Your task to perform on an android device: Open Maps and search for coffee Image 0: 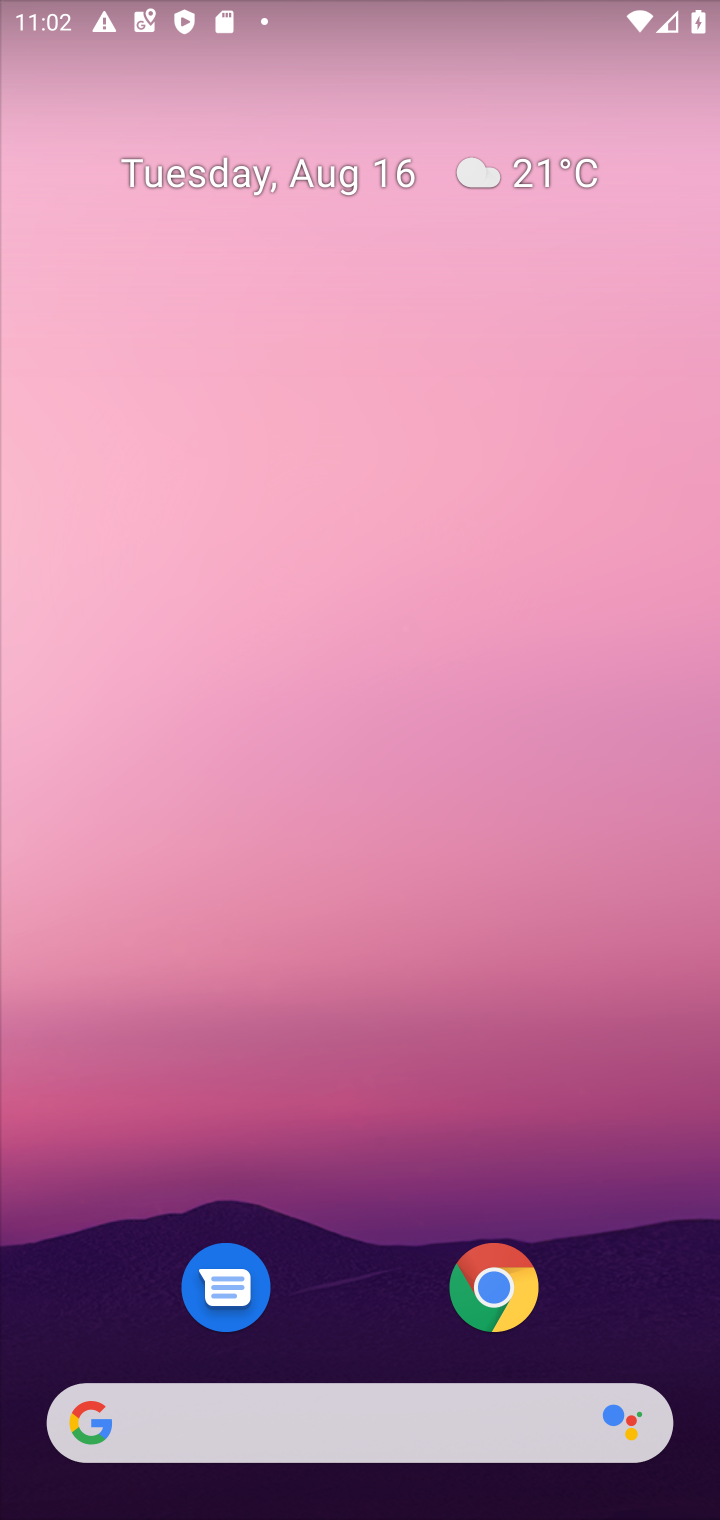
Step 0: drag from (676, 1333) to (629, 182)
Your task to perform on an android device: Open Maps and search for coffee Image 1: 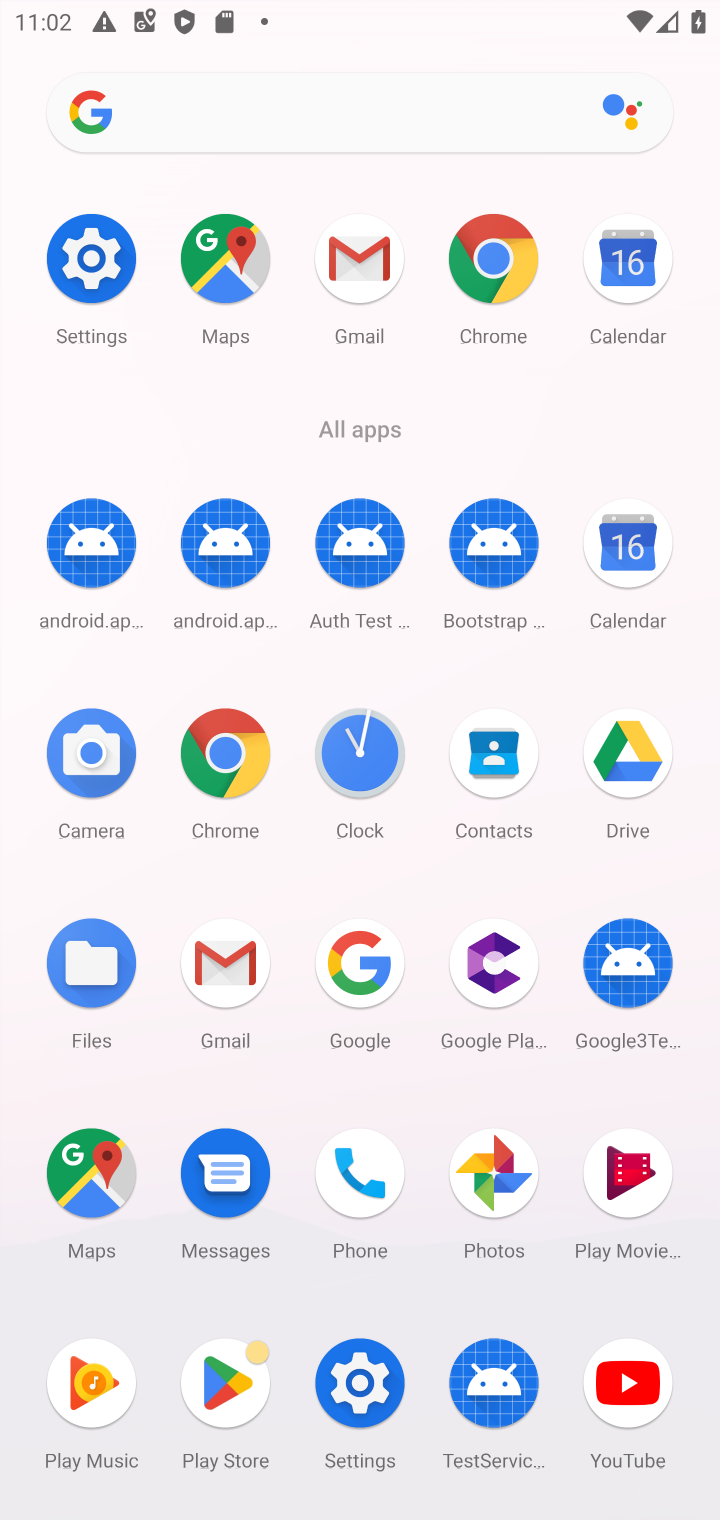
Step 1: click (91, 1176)
Your task to perform on an android device: Open Maps and search for coffee Image 2: 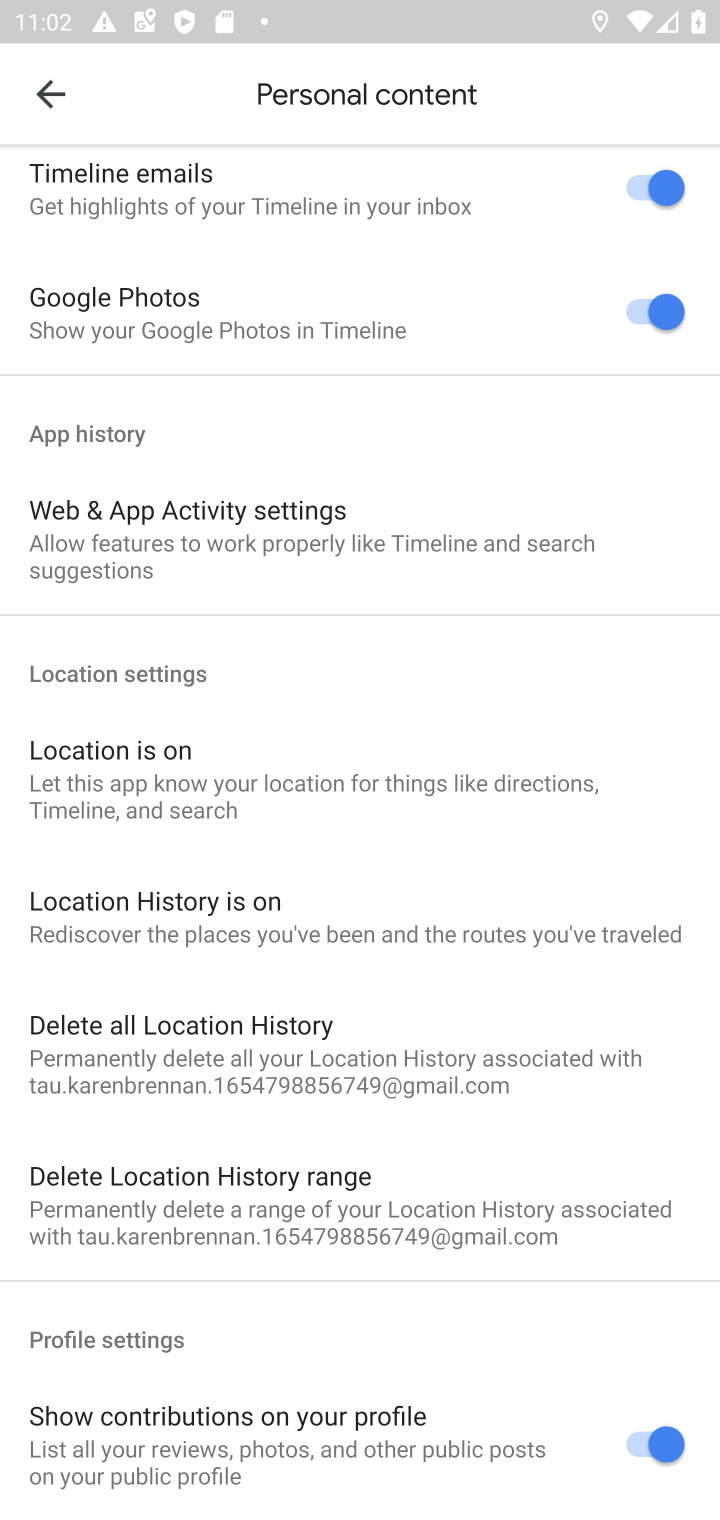
Step 2: press back button
Your task to perform on an android device: Open Maps and search for coffee Image 3: 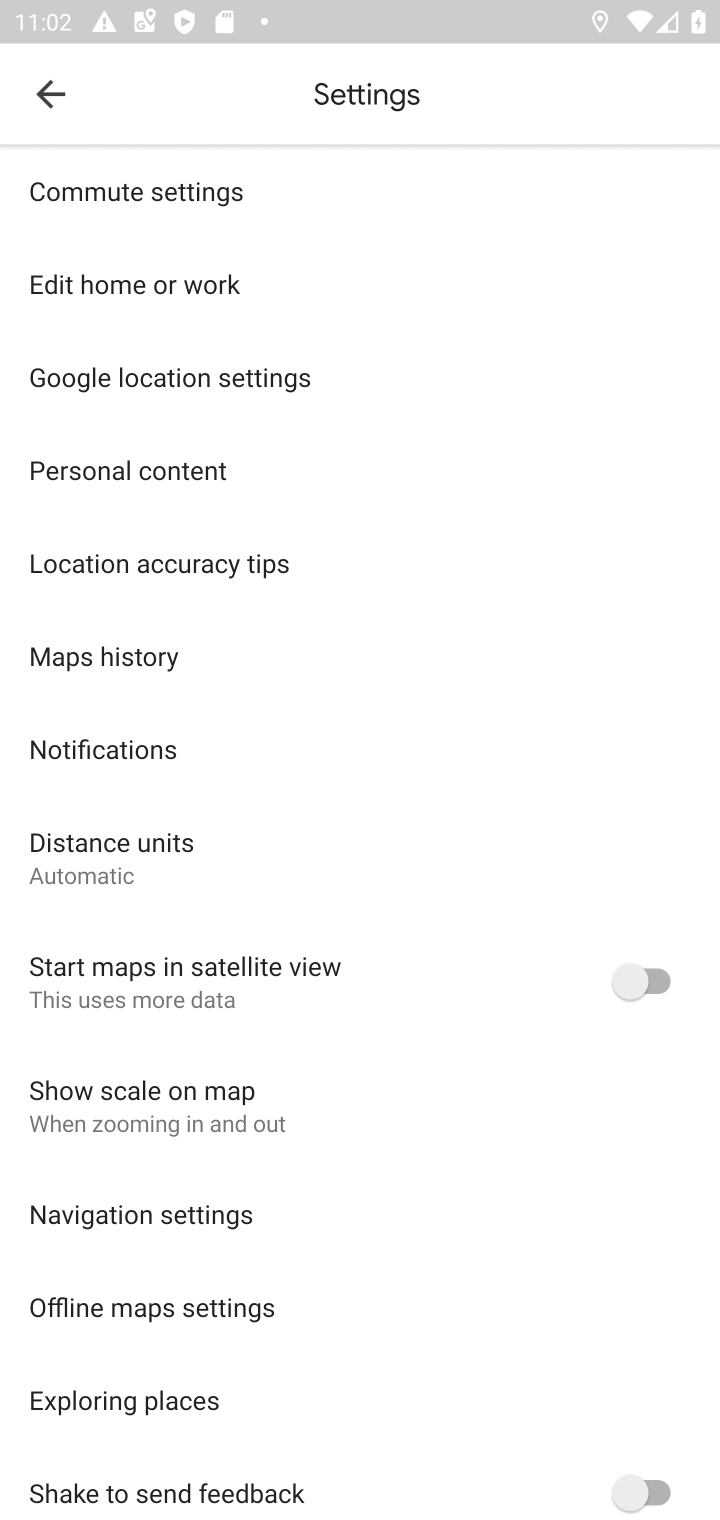
Step 3: press back button
Your task to perform on an android device: Open Maps and search for coffee Image 4: 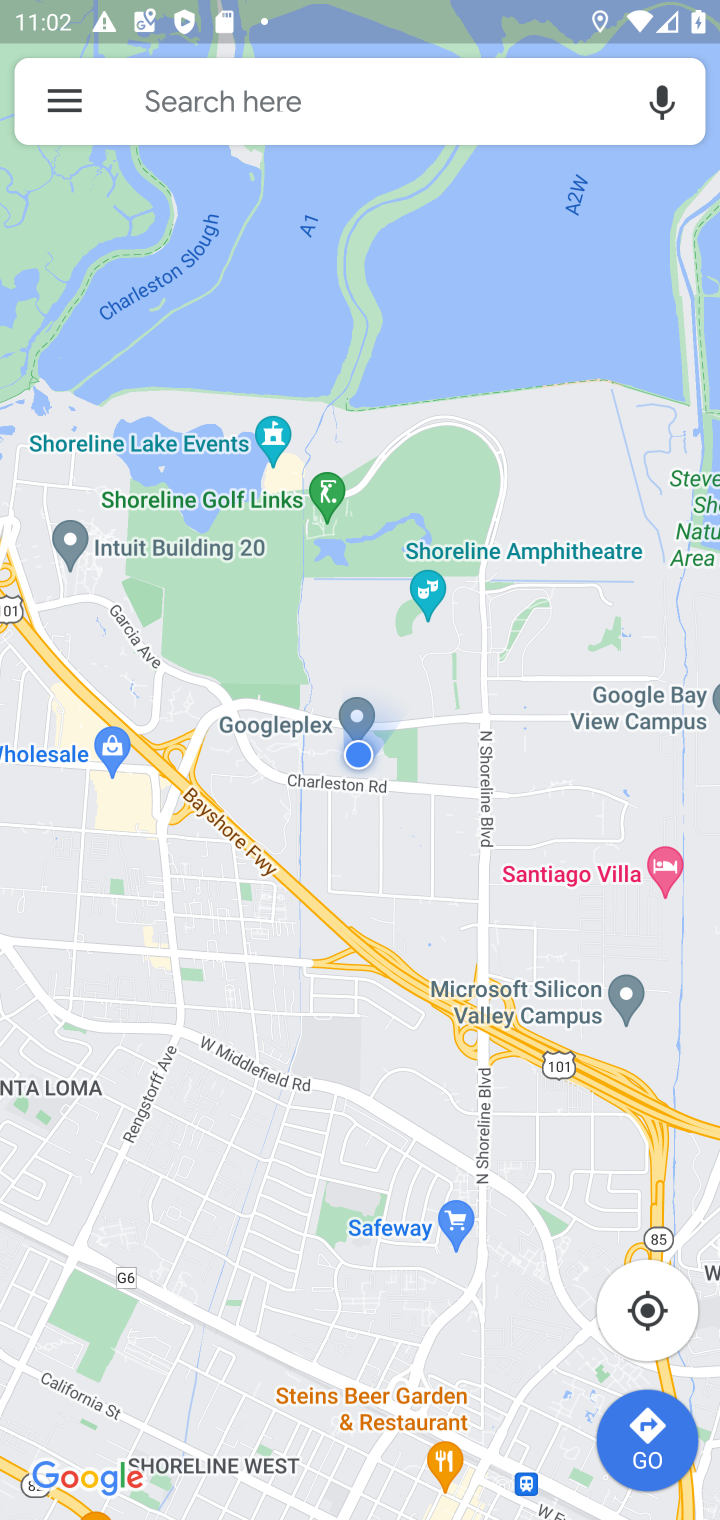
Step 4: click (258, 98)
Your task to perform on an android device: Open Maps and search for coffee Image 5: 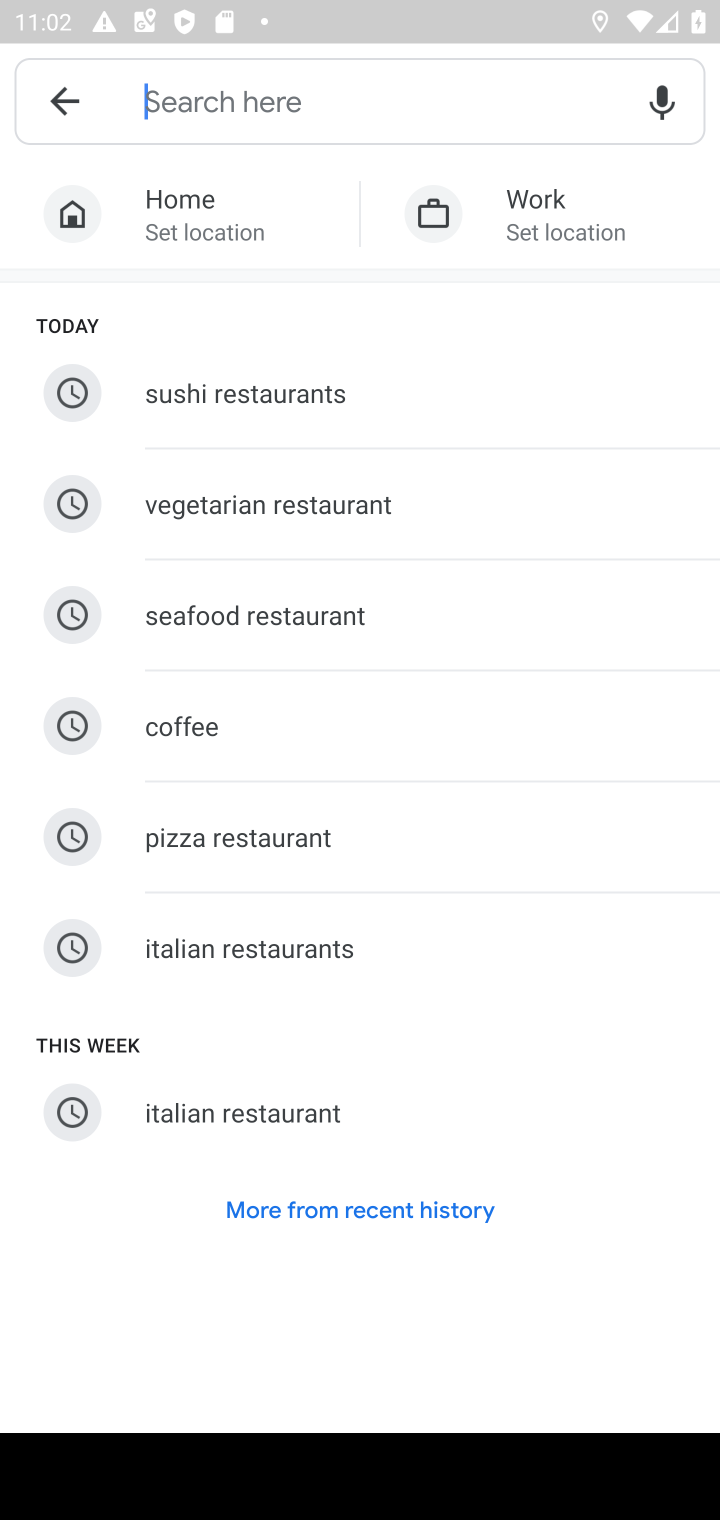
Step 5: type "coffee"
Your task to perform on an android device: Open Maps and search for coffee Image 6: 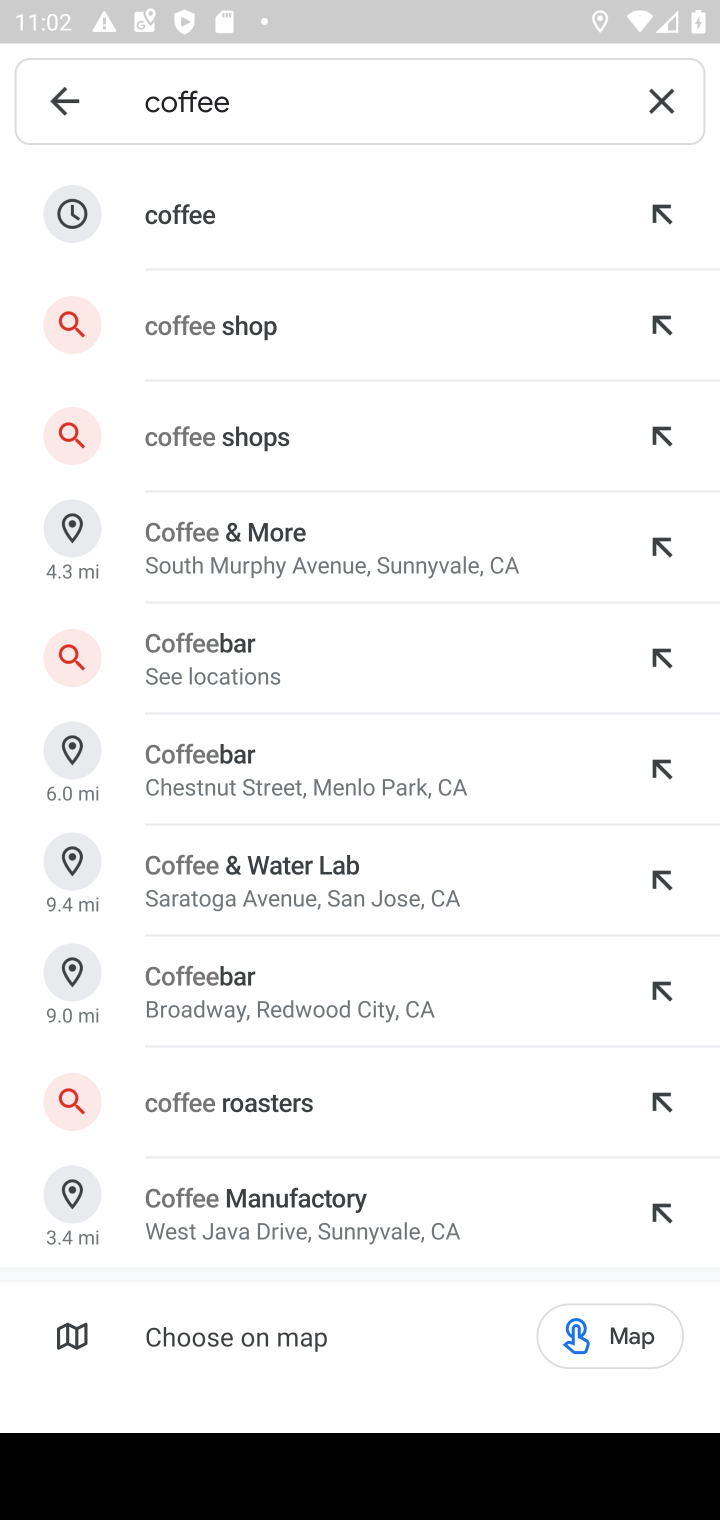
Step 6: click (188, 230)
Your task to perform on an android device: Open Maps and search for coffee Image 7: 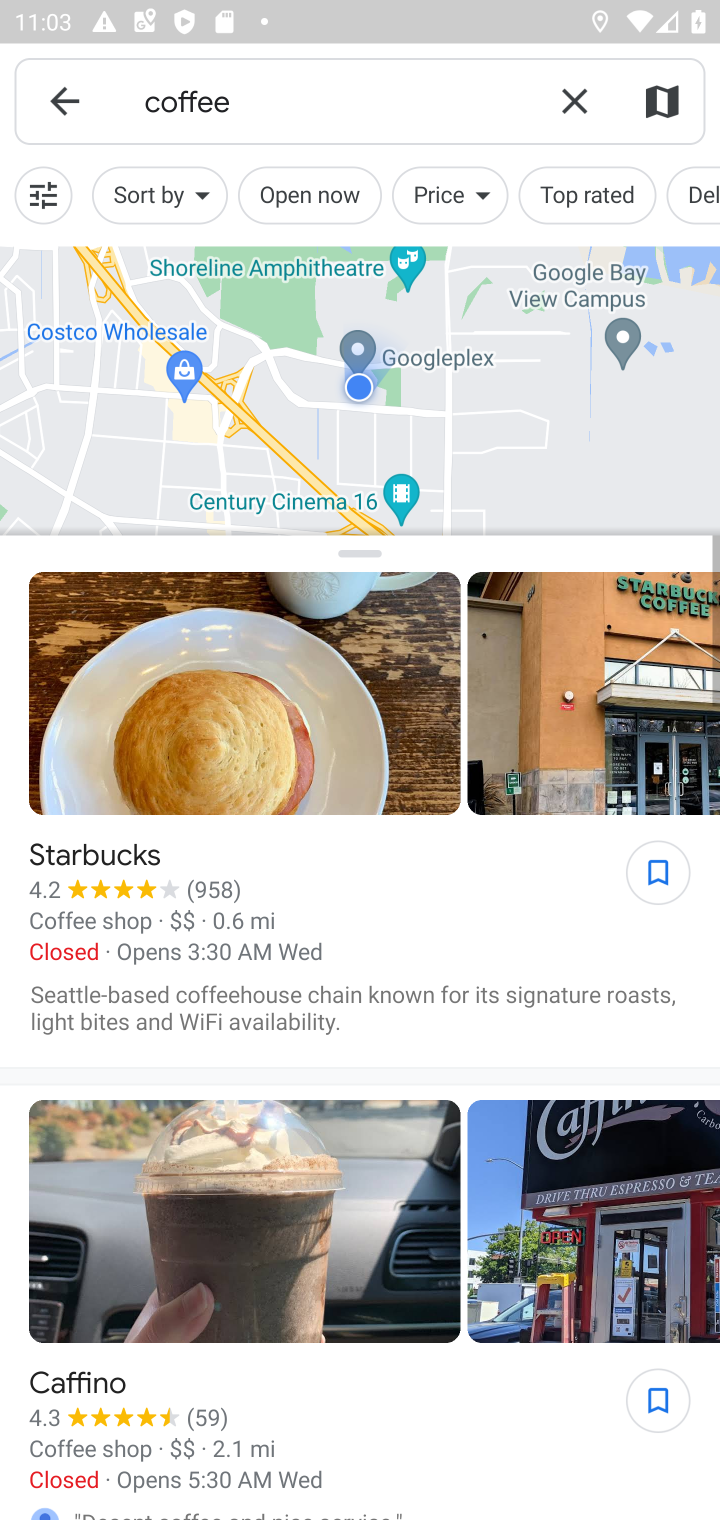
Step 7: task complete